Your task to perform on an android device: Turn on the flashlight Image 0: 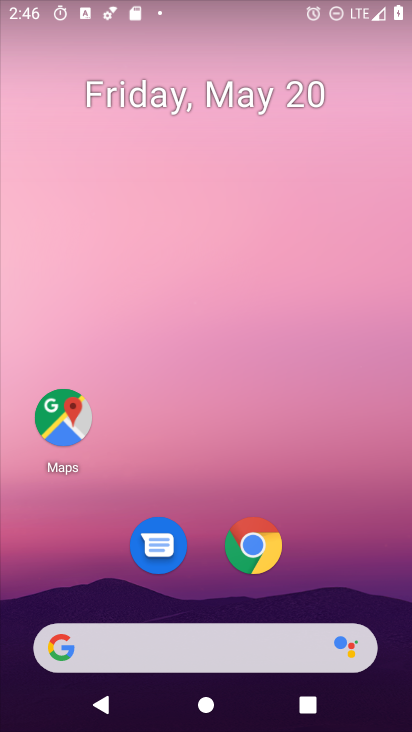
Step 0: drag from (316, 616) to (387, 559)
Your task to perform on an android device: Turn on the flashlight Image 1: 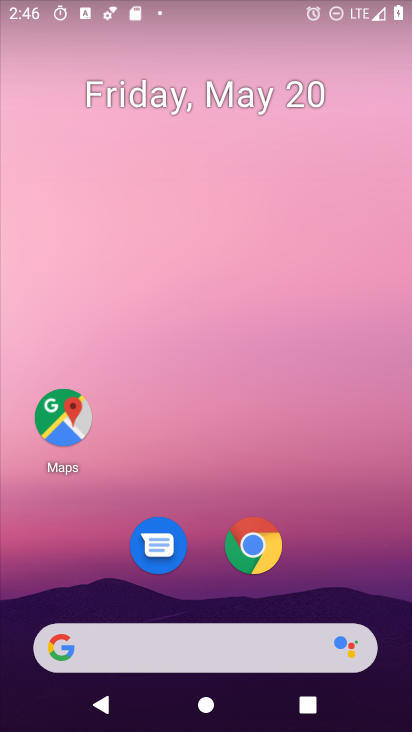
Step 1: click (50, 157)
Your task to perform on an android device: Turn on the flashlight Image 2: 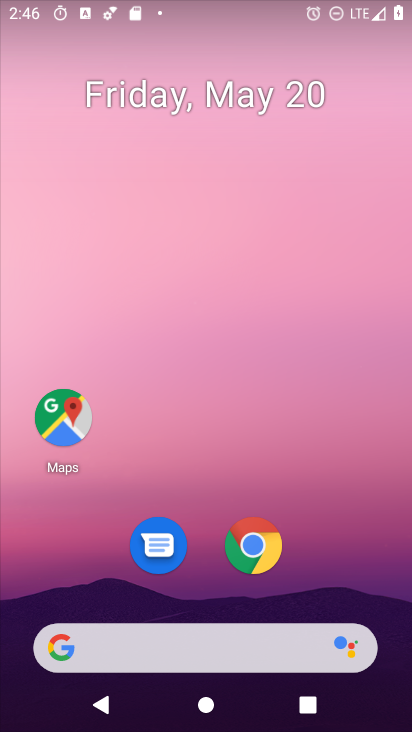
Step 2: drag from (266, 639) to (261, 2)
Your task to perform on an android device: Turn on the flashlight Image 3: 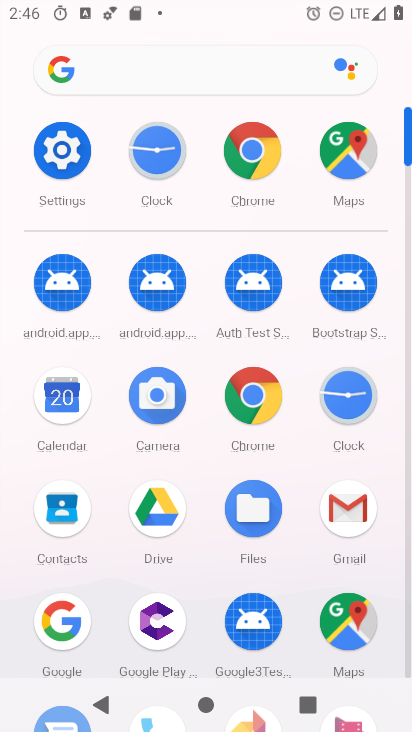
Step 3: click (70, 150)
Your task to perform on an android device: Turn on the flashlight Image 4: 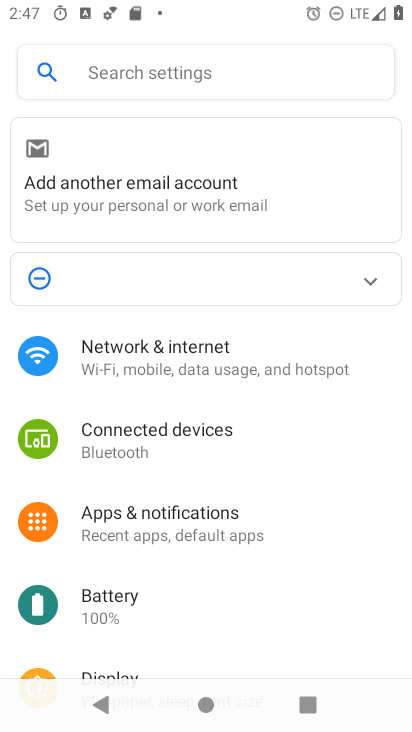
Step 4: task complete